Your task to perform on an android device: Go to privacy settings Image 0: 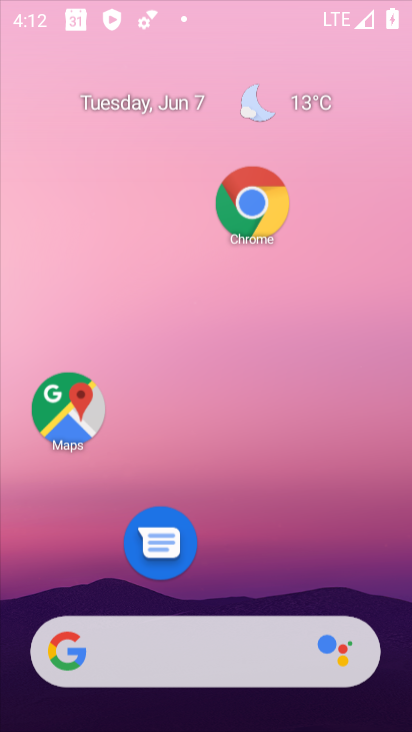
Step 0: press home button
Your task to perform on an android device: Go to privacy settings Image 1: 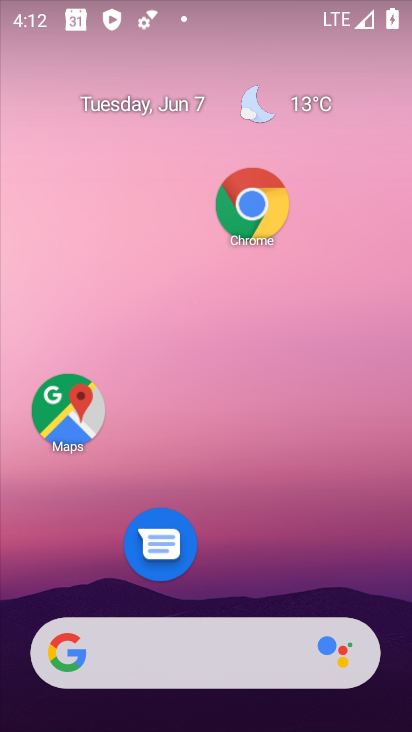
Step 1: drag from (218, 585) to (227, 109)
Your task to perform on an android device: Go to privacy settings Image 2: 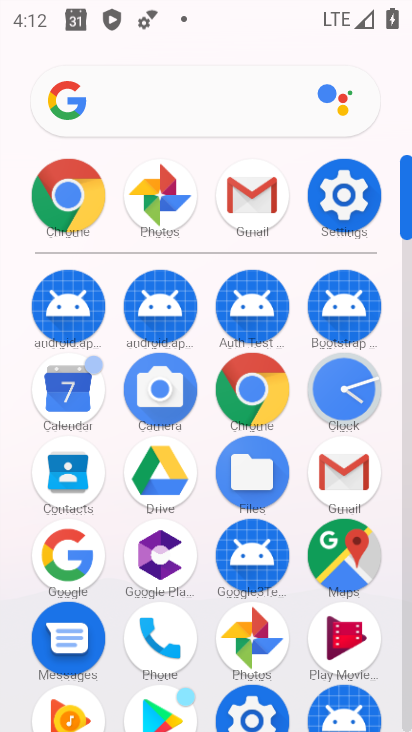
Step 2: click (342, 186)
Your task to perform on an android device: Go to privacy settings Image 3: 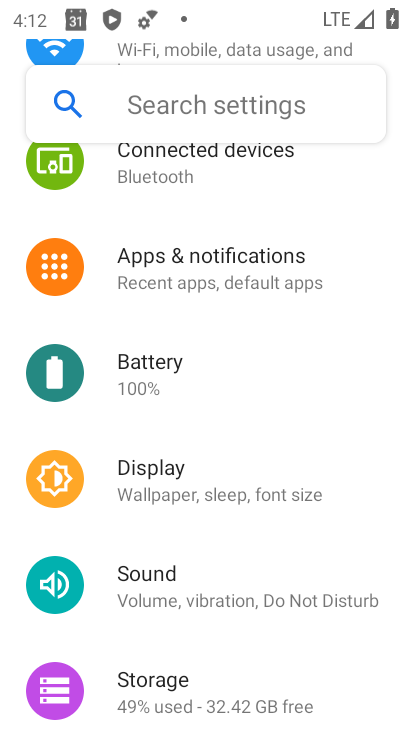
Step 3: drag from (198, 633) to (228, 183)
Your task to perform on an android device: Go to privacy settings Image 4: 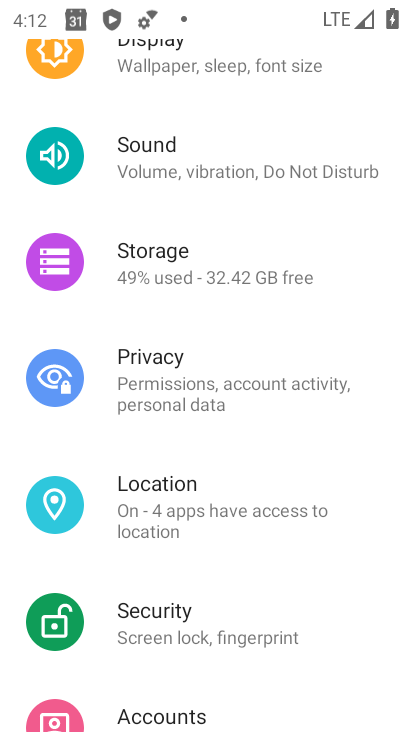
Step 4: click (209, 362)
Your task to perform on an android device: Go to privacy settings Image 5: 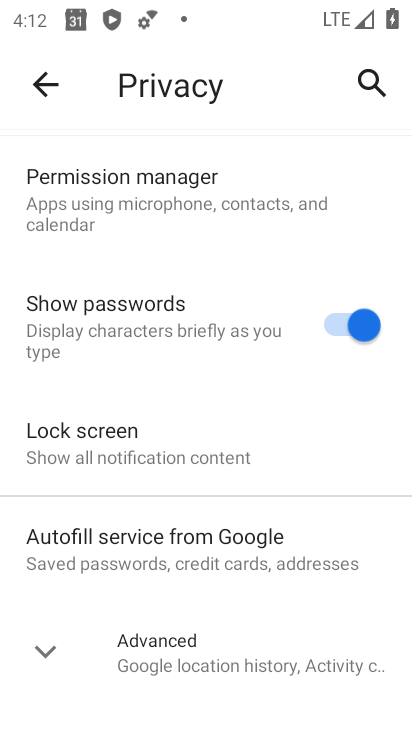
Step 5: click (47, 645)
Your task to perform on an android device: Go to privacy settings Image 6: 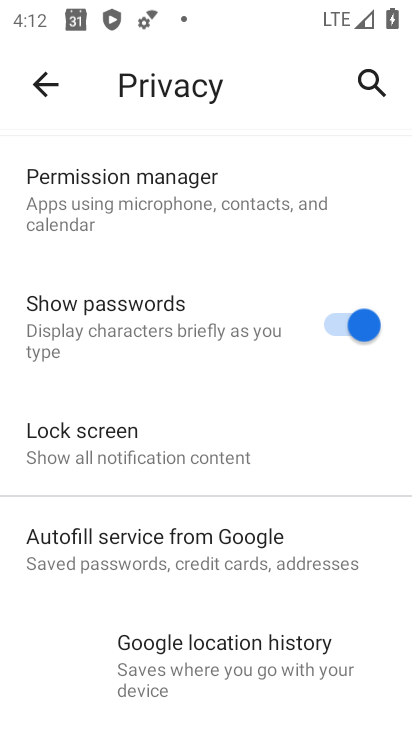
Step 6: task complete